Your task to perform on an android device: Show me productivity apps on the Play Store Image 0: 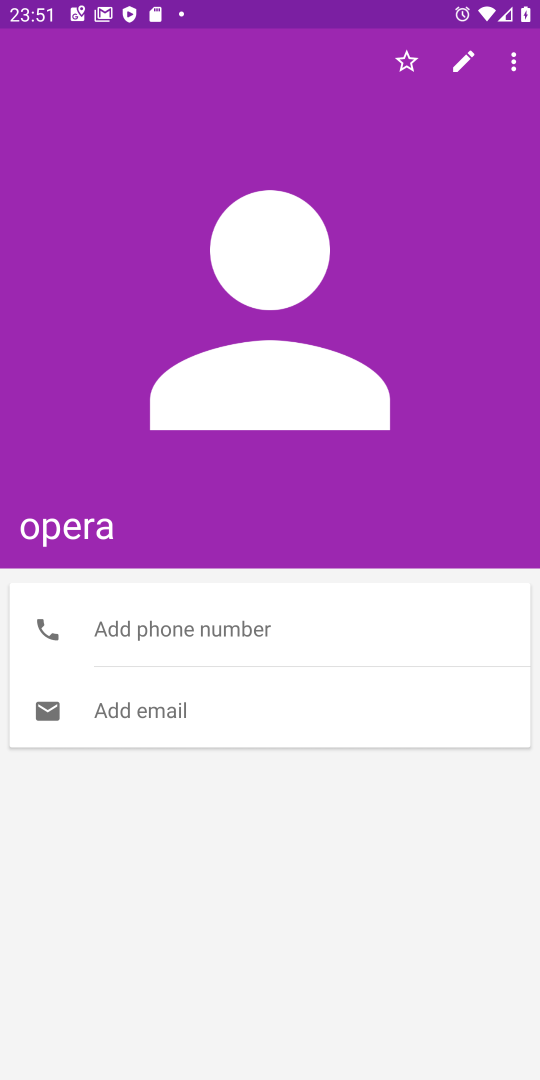
Step 0: press home button
Your task to perform on an android device: Show me productivity apps on the Play Store Image 1: 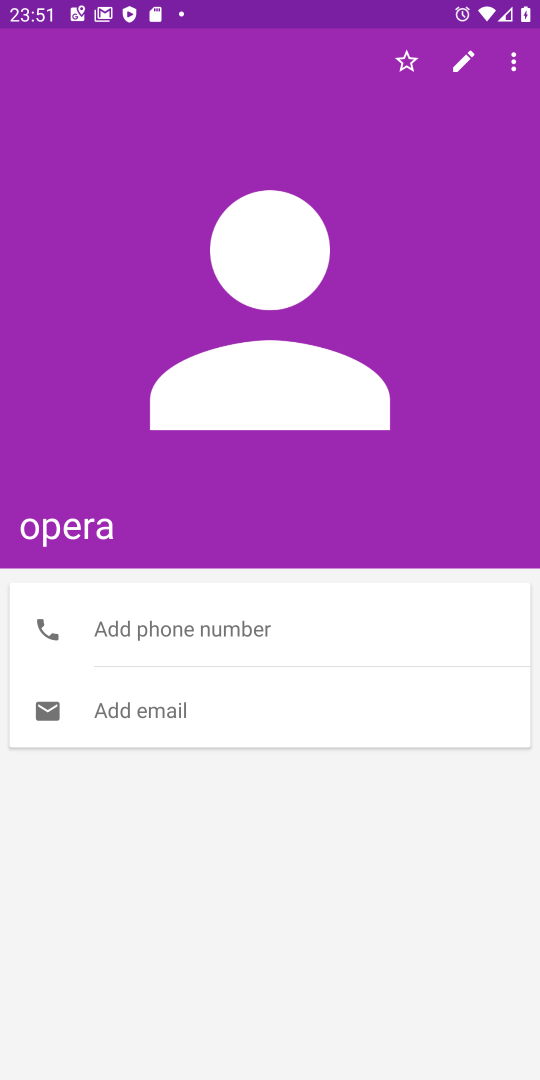
Step 1: press home button
Your task to perform on an android device: Show me productivity apps on the Play Store Image 2: 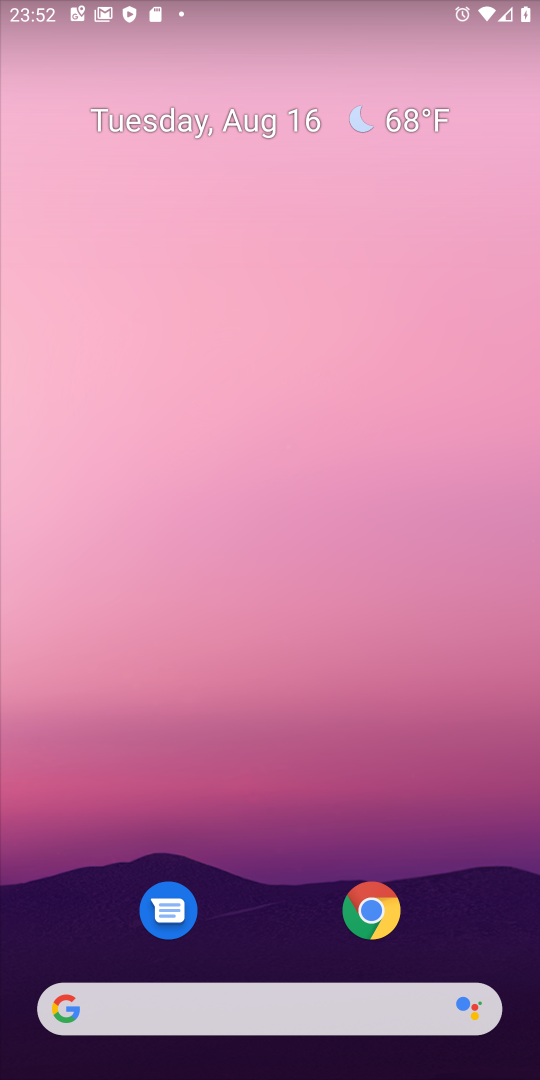
Step 2: drag from (256, 906) to (279, 58)
Your task to perform on an android device: Show me productivity apps on the Play Store Image 3: 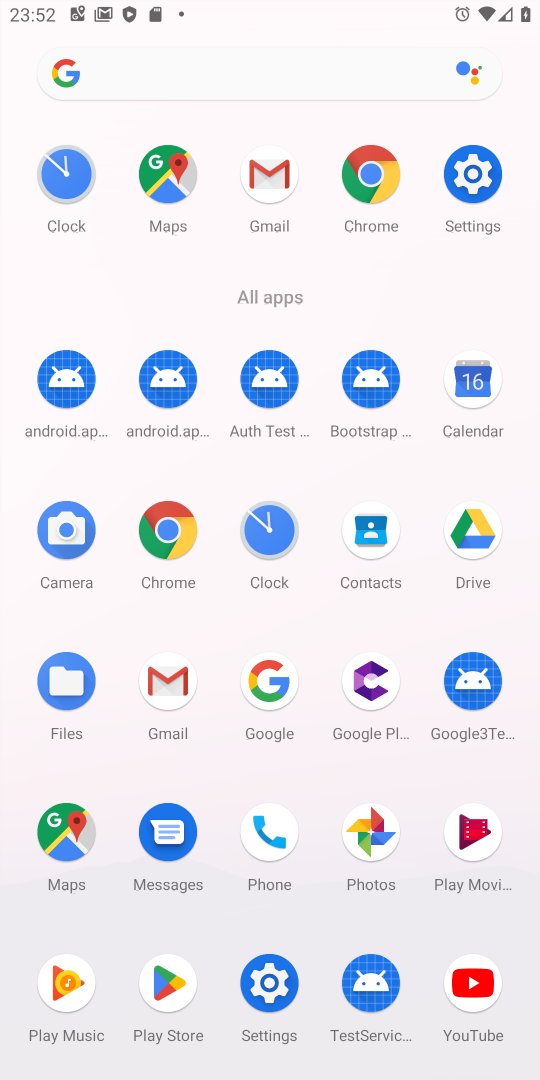
Step 3: click (181, 971)
Your task to perform on an android device: Show me productivity apps on the Play Store Image 4: 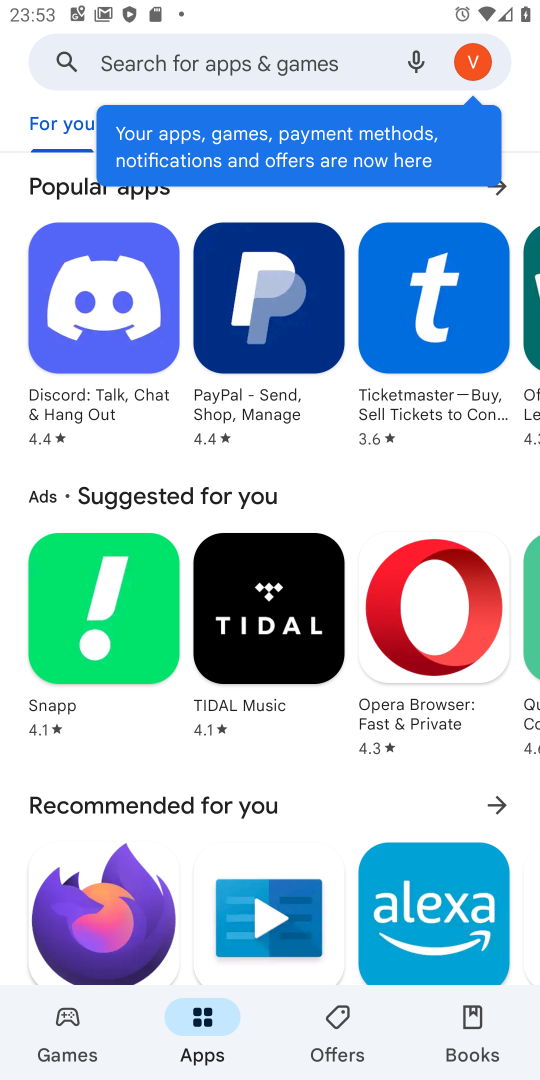
Step 4: task complete